Your task to perform on an android device: toggle priority inbox in the gmail app Image 0: 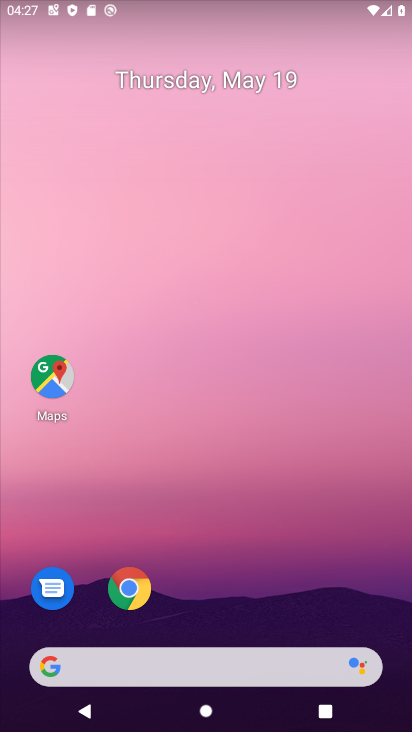
Step 0: drag from (231, 620) to (290, 89)
Your task to perform on an android device: toggle priority inbox in the gmail app Image 1: 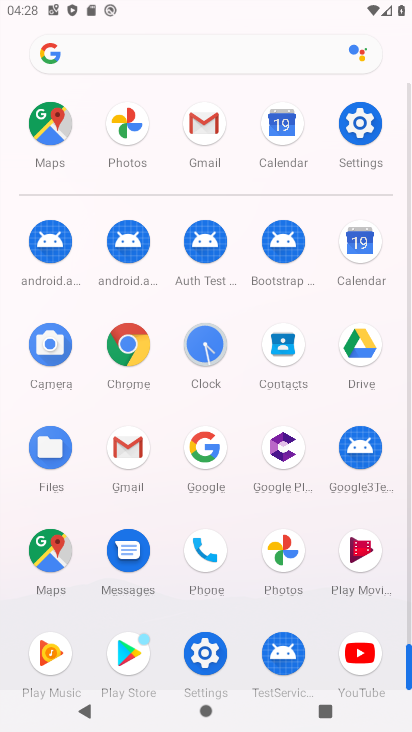
Step 1: click (128, 455)
Your task to perform on an android device: toggle priority inbox in the gmail app Image 2: 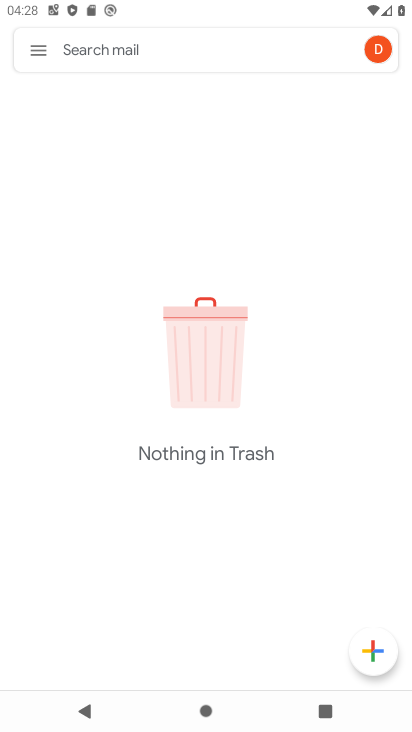
Step 2: click (33, 43)
Your task to perform on an android device: toggle priority inbox in the gmail app Image 3: 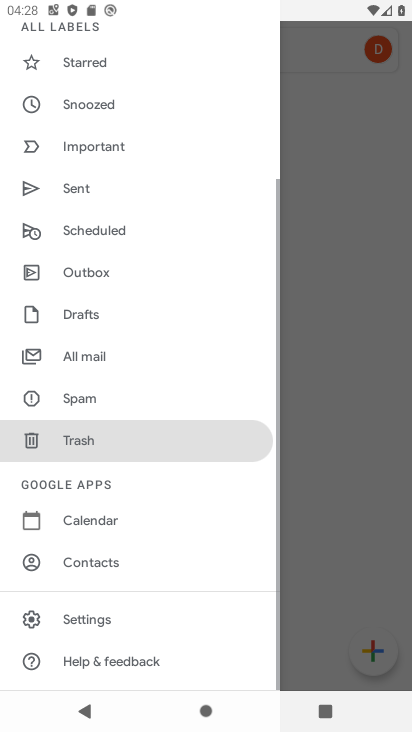
Step 3: click (113, 618)
Your task to perform on an android device: toggle priority inbox in the gmail app Image 4: 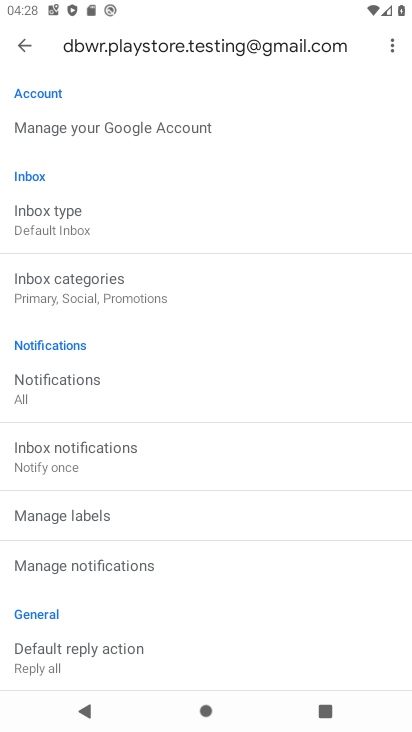
Step 4: click (60, 230)
Your task to perform on an android device: toggle priority inbox in the gmail app Image 5: 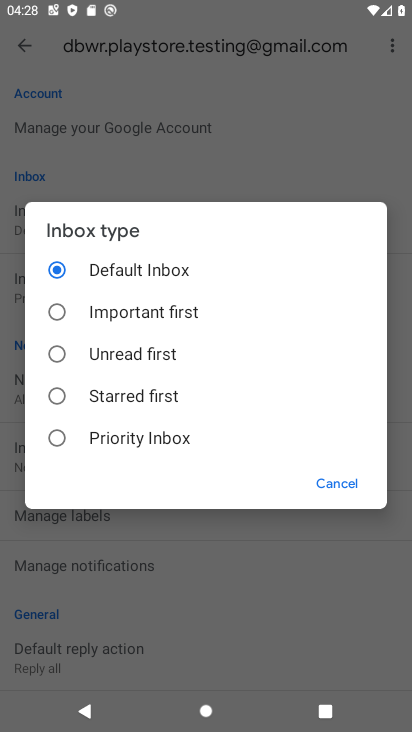
Step 5: click (110, 442)
Your task to perform on an android device: toggle priority inbox in the gmail app Image 6: 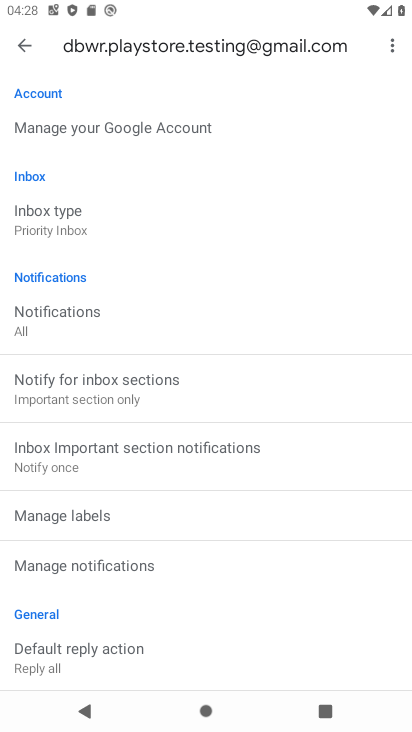
Step 6: task complete